Your task to perform on an android device: Open settings on Google Maps Image 0: 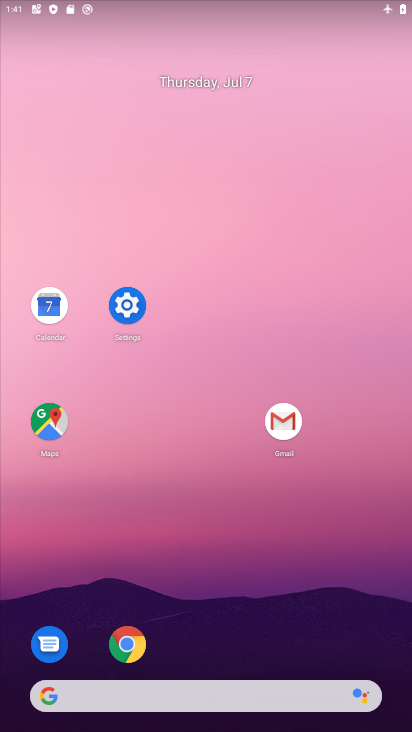
Step 0: click (31, 415)
Your task to perform on an android device: Open settings on Google Maps Image 1: 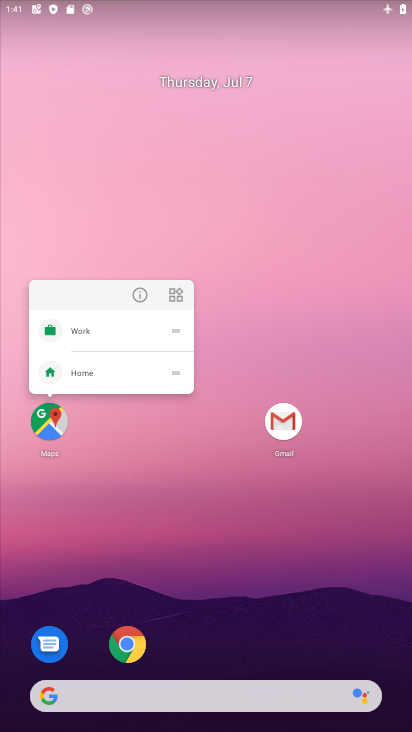
Step 1: click (37, 425)
Your task to perform on an android device: Open settings on Google Maps Image 2: 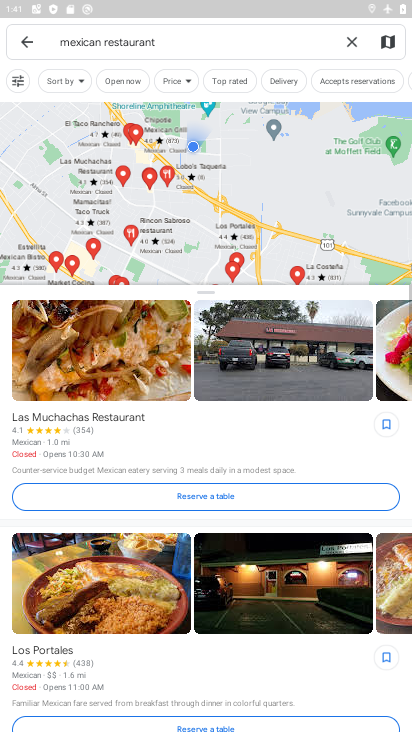
Step 2: click (29, 41)
Your task to perform on an android device: Open settings on Google Maps Image 3: 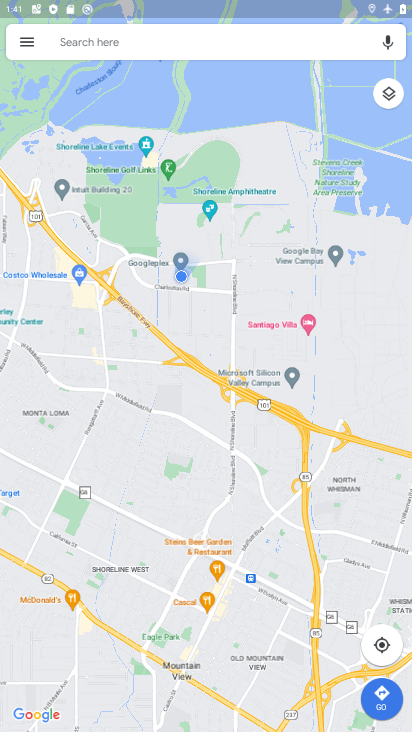
Step 3: click (24, 42)
Your task to perform on an android device: Open settings on Google Maps Image 4: 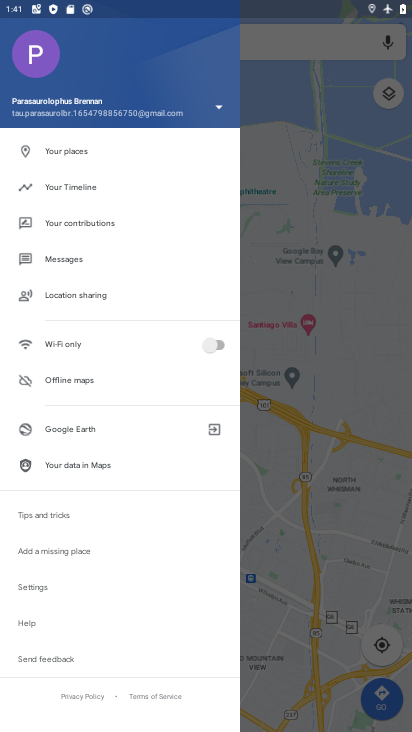
Step 4: click (47, 586)
Your task to perform on an android device: Open settings on Google Maps Image 5: 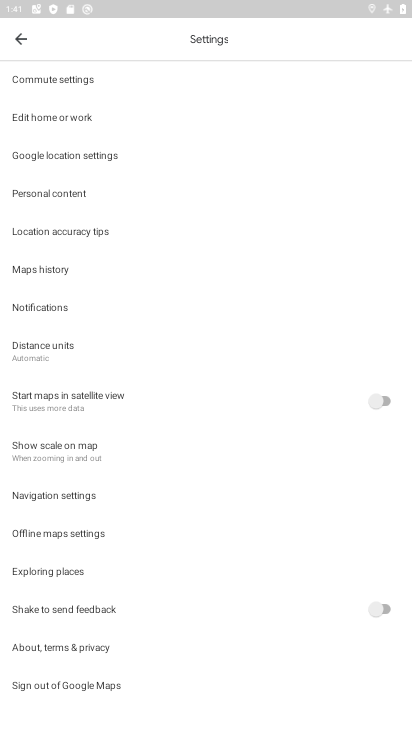
Step 5: drag from (284, 563) to (222, 173)
Your task to perform on an android device: Open settings on Google Maps Image 6: 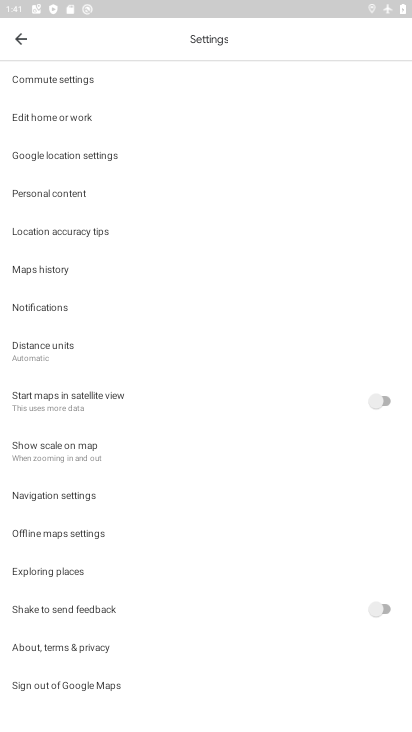
Step 6: click (273, 472)
Your task to perform on an android device: Open settings on Google Maps Image 7: 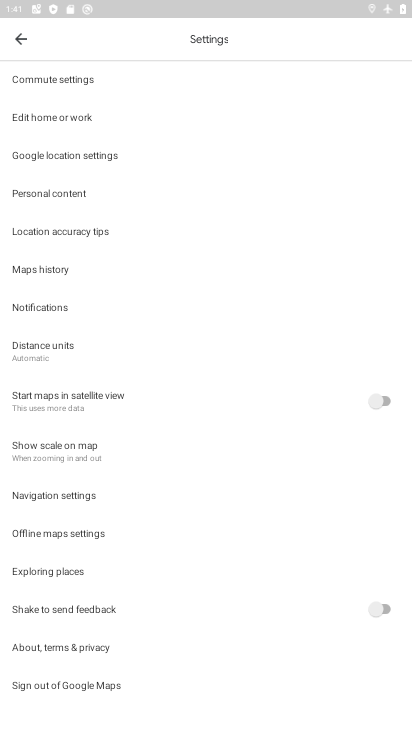
Step 7: click (36, 353)
Your task to perform on an android device: Open settings on Google Maps Image 8: 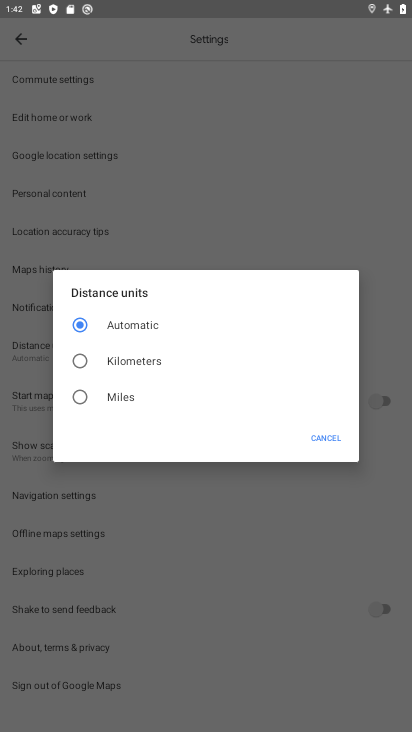
Step 8: task complete